Your task to perform on an android device: What's the weather going to be this weekend? Image 0: 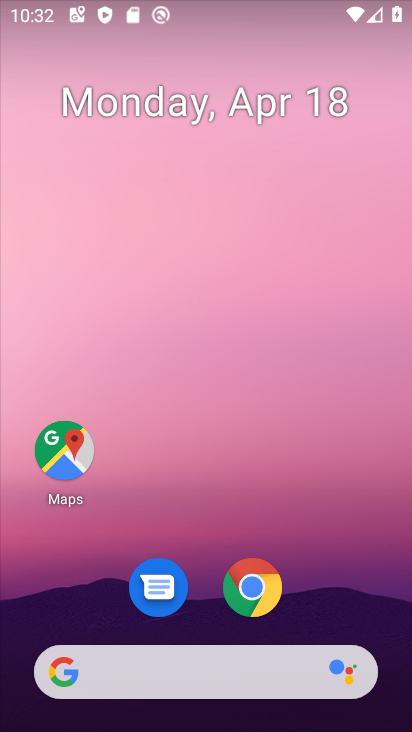
Step 0: drag from (324, 435) to (317, 150)
Your task to perform on an android device: What's the weather going to be this weekend? Image 1: 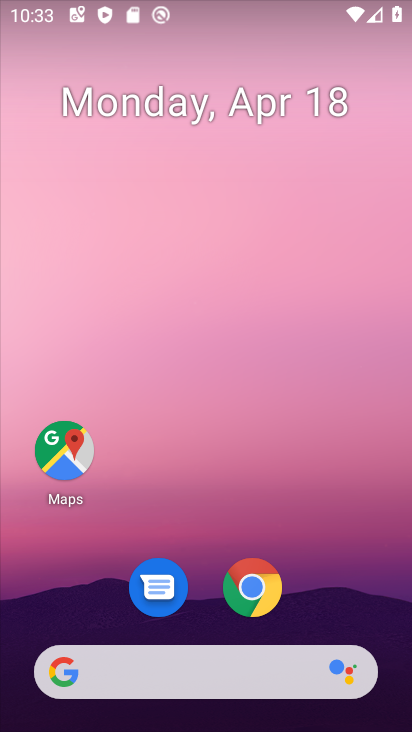
Step 1: click (247, 581)
Your task to perform on an android device: What's the weather going to be this weekend? Image 2: 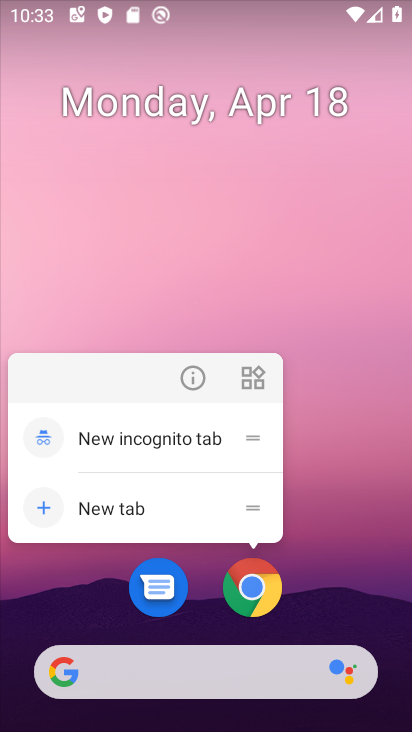
Step 2: click (270, 593)
Your task to perform on an android device: What's the weather going to be this weekend? Image 3: 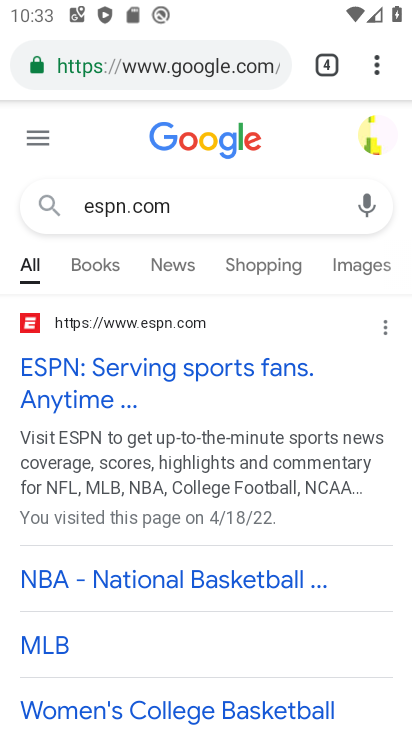
Step 3: click (338, 61)
Your task to perform on an android device: What's the weather going to be this weekend? Image 4: 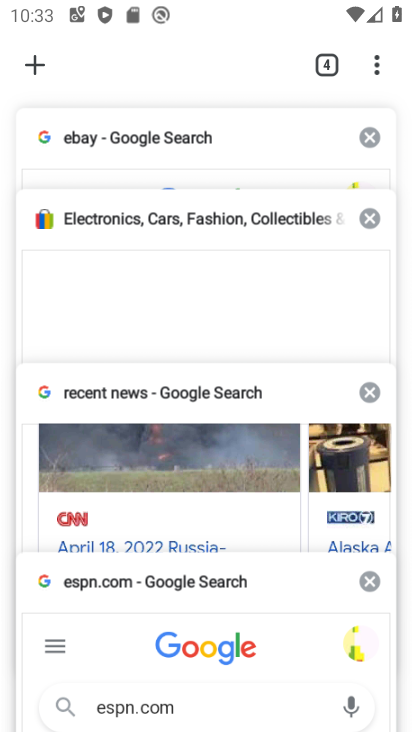
Step 4: click (43, 71)
Your task to perform on an android device: What's the weather going to be this weekend? Image 5: 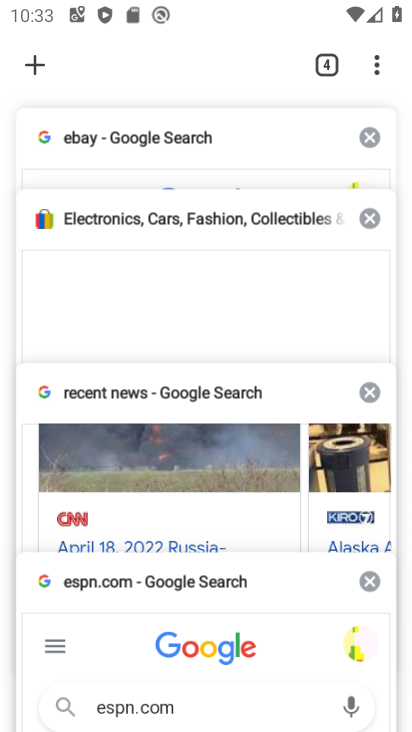
Step 5: click (62, 85)
Your task to perform on an android device: What's the weather going to be this weekend? Image 6: 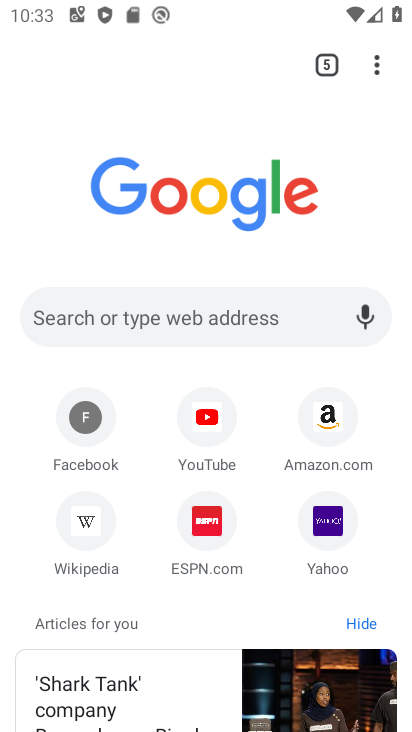
Step 6: click (212, 316)
Your task to perform on an android device: What's the weather going to be this weekend? Image 7: 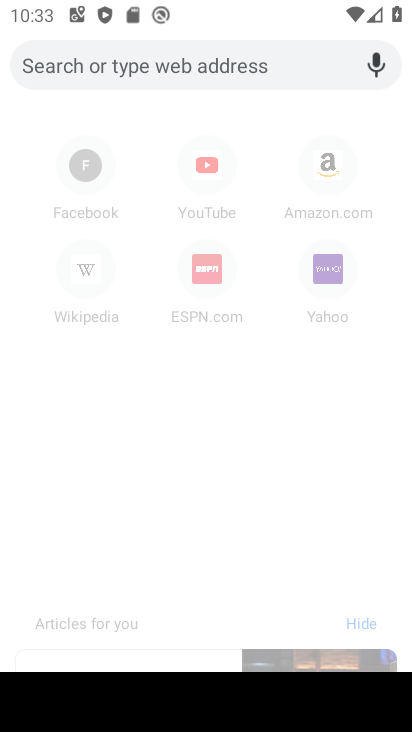
Step 7: type "what's the weather going to be this weekend"
Your task to perform on an android device: What's the weather going to be this weekend? Image 8: 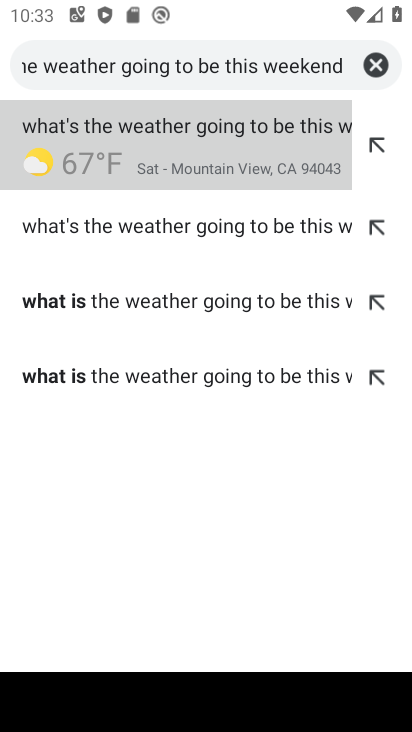
Step 8: click (69, 133)
Your task to perform on an android device: What's the weather going to be this weekend? Image 9: 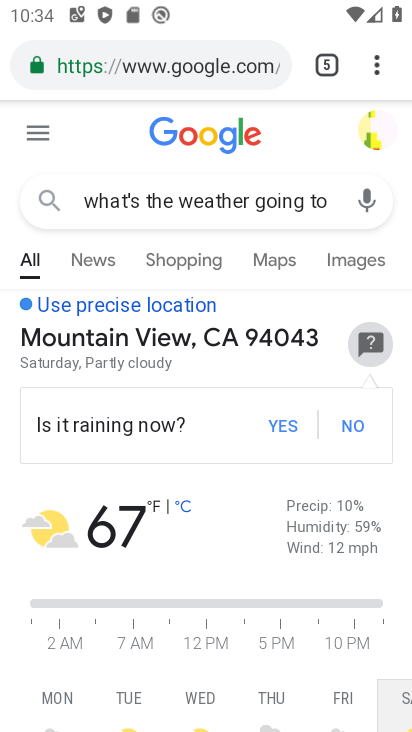
Step 9: task complete